Your task to perform on an android device: toggle pop-ups in chrome Image 0: 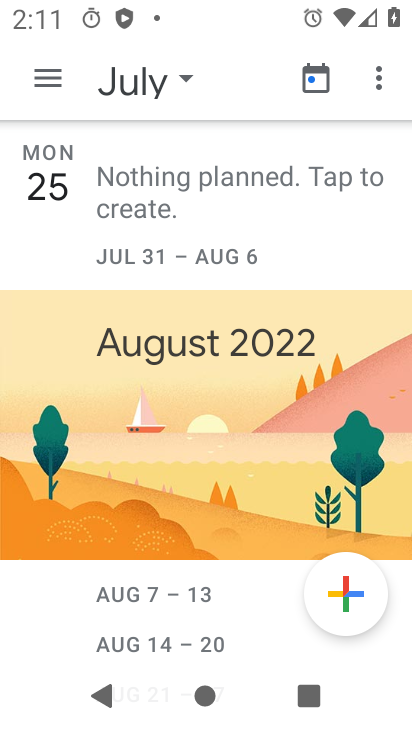
Step 0: press home button
Your task to perform on an android device: toggle pop-ups in chrome Image 1: 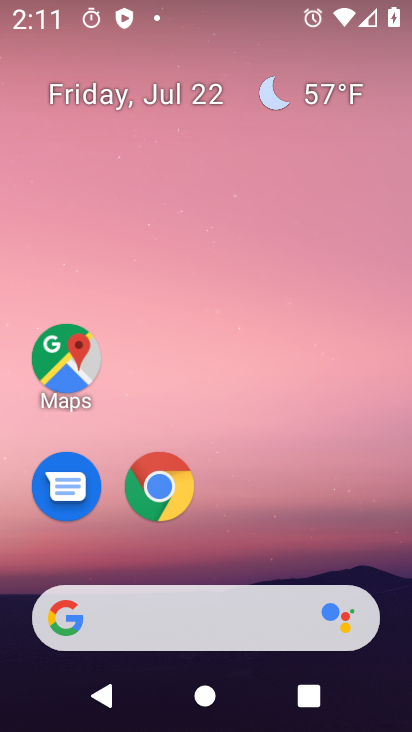
Step 1: drag from (375, 542) to (361, 154)
Your task to perform on an android device: toggle pop-ups in chrome Image 2: 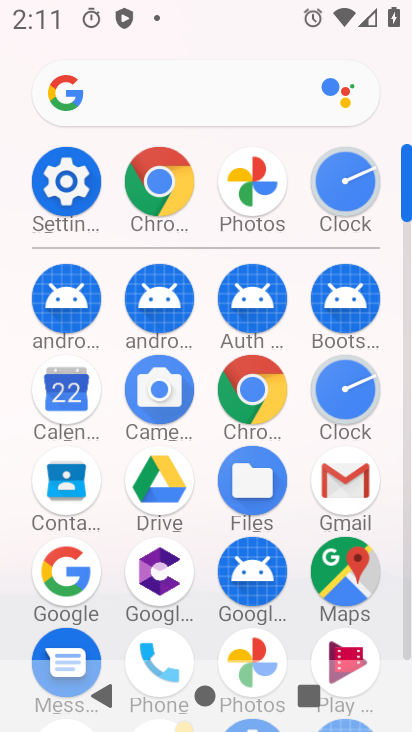
Step 2: click (256, 386)
Your task to perform on an android device: toggle pop-ups in chrome Image 3: 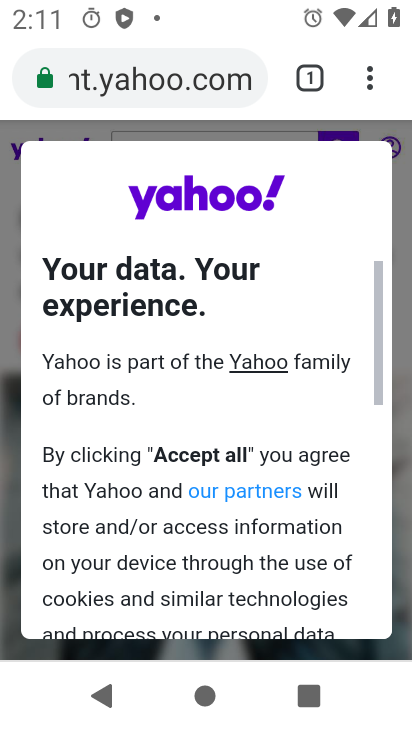
Step 3: click (368, 83)
Your task to perform on an android device: toggle pop-ups in chrome Image 4: 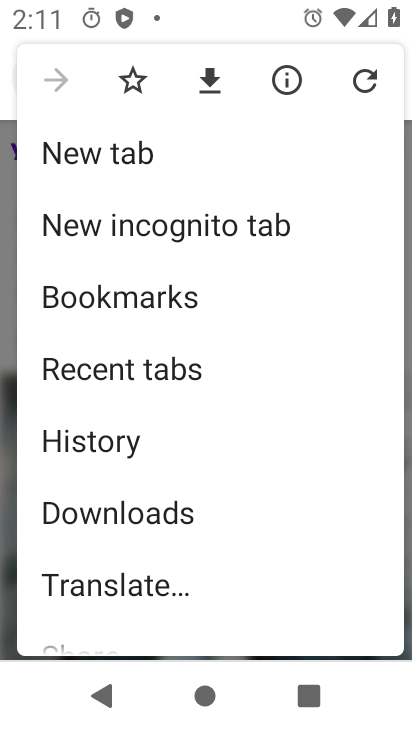
Step 4: drag from (348, 500) to (352, 398)
Your task to perform on an android device: toggle pop-ups in chrome Image 5: 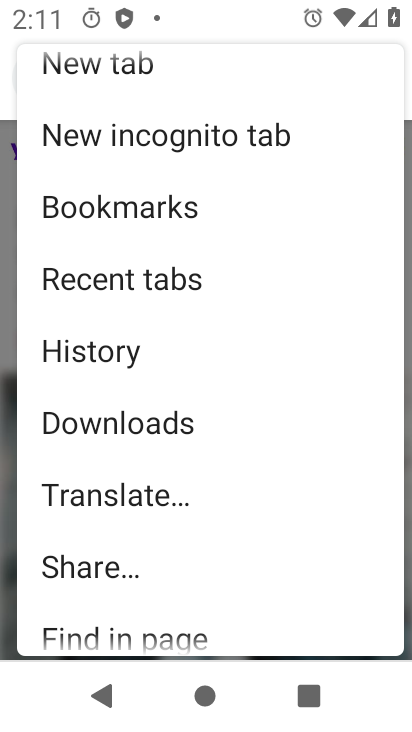
Step 5: drag from (353, 550) to (357, 434)
Your task to perform on an android device: toggle pop-ups in chrome Image 6: 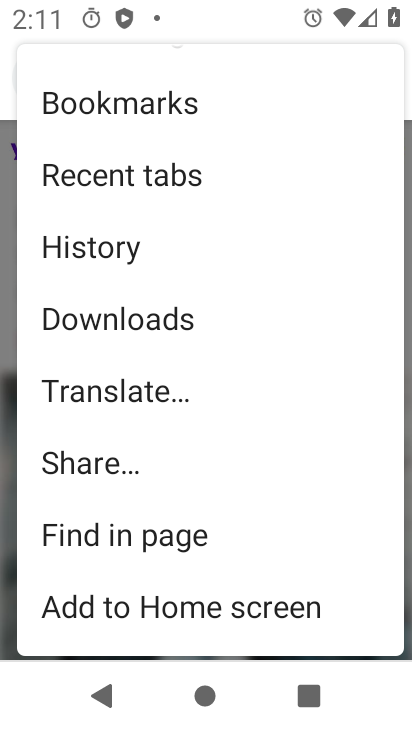
Step 6: drag from (342, 541) to (342, 451)
Your task to perform on an android device: toggle pop-ups in chrome Image 7: 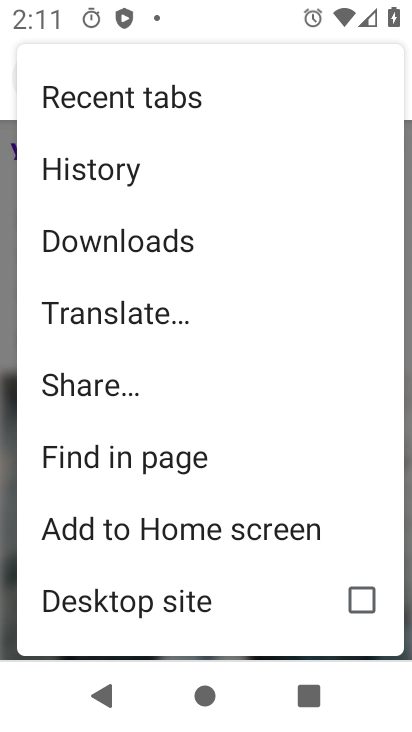
Step 7: drag from (306, 580) to (302, 415)
Your task to perform on an android device: toggle pop-ups in chrome Image 8: 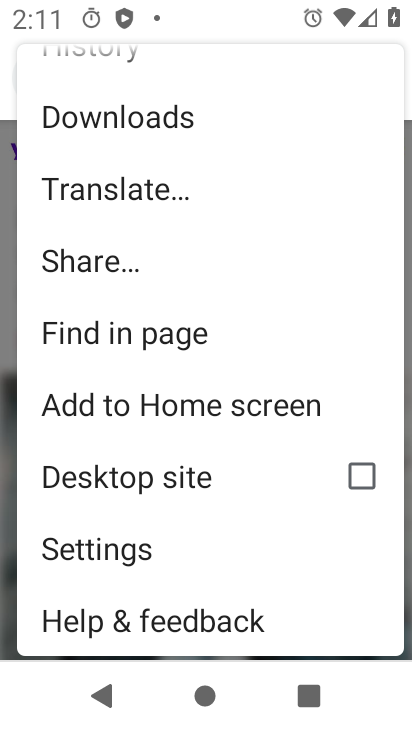
Step 8: click (148, 552)
Your task to perform on an android device: toggle pop-ups in chrome Image 9: 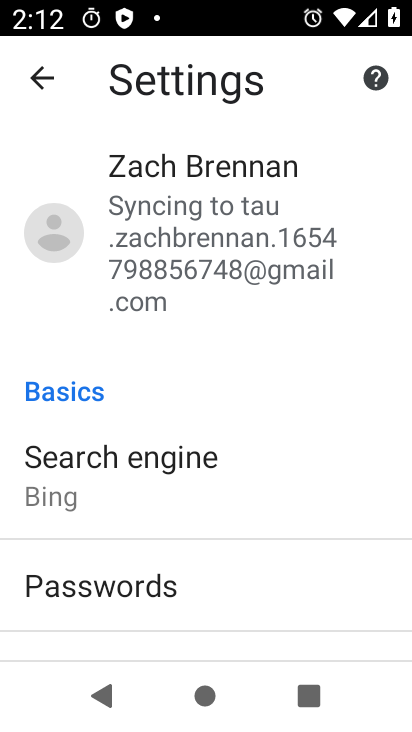
Step 9: drag from (326, 533) to (336, 459)
Your task to perform on an android device: toggle pop-ups in chrome Image 10: 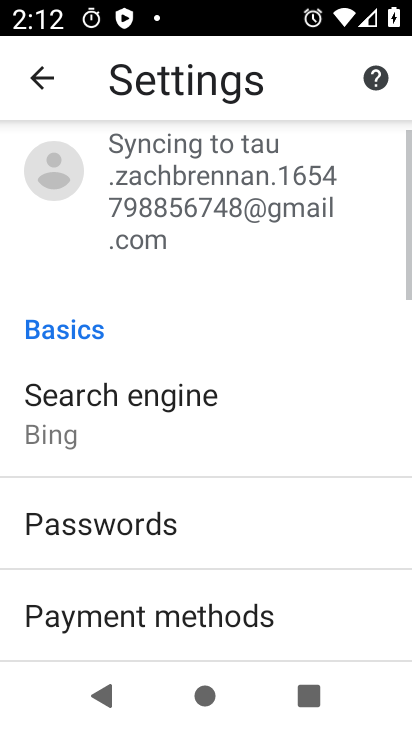
Step 10: drag from (334, 552) to (333, 469)
Your task to perform on an android device: toggle pop-ups in chrome Image 11: 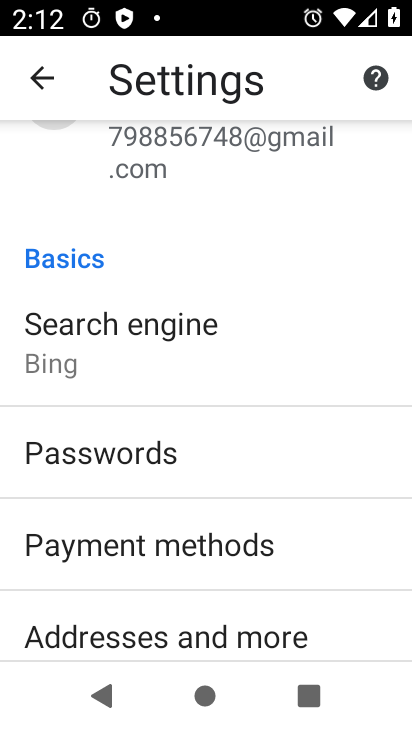
Step 11: drag from (332, 529) to (331, 464)
Your task to perform on an android device: toggle pop-ups in chrome Image 12: 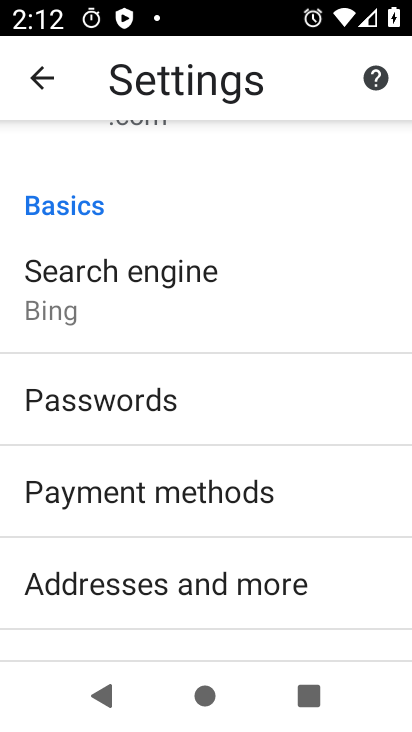
Step 12: drag from (332, 549) to (337, 454)
Your task to perform on an android device: toggle pop-ups in chrome Image 13: 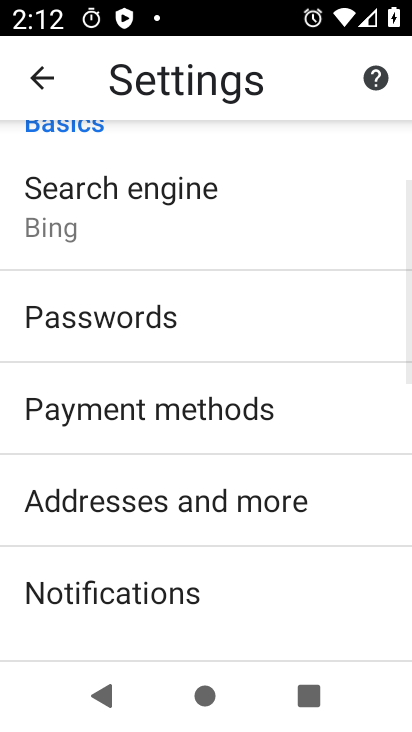
Step 13: drag from (336, 555) to (337, 474)
Your task to perform on an android device: toggle pop-ups in chrome Image 14: 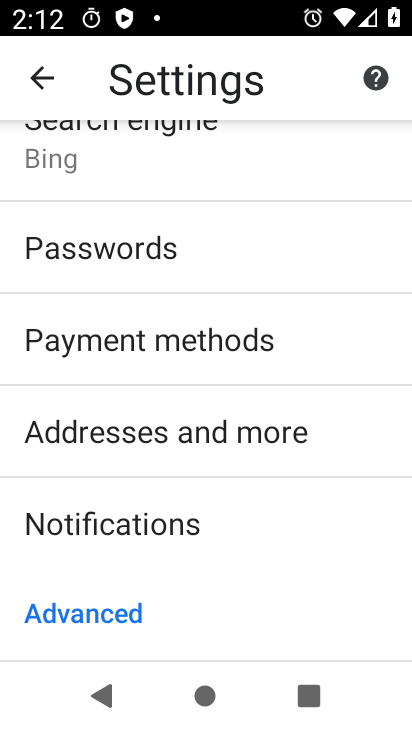
Step 14: drag from (323, 553) to (331, 485)
Your task to perform on an android device: toggle pop-ups in chrome Image 15: 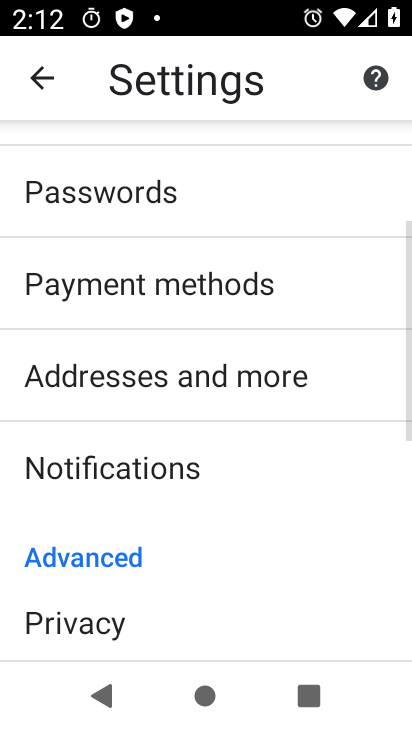
Step 15: drag from (335, 561) to (340, 463)
Your task to perform on an android device: toggle pop-ups in chrome Image 16: 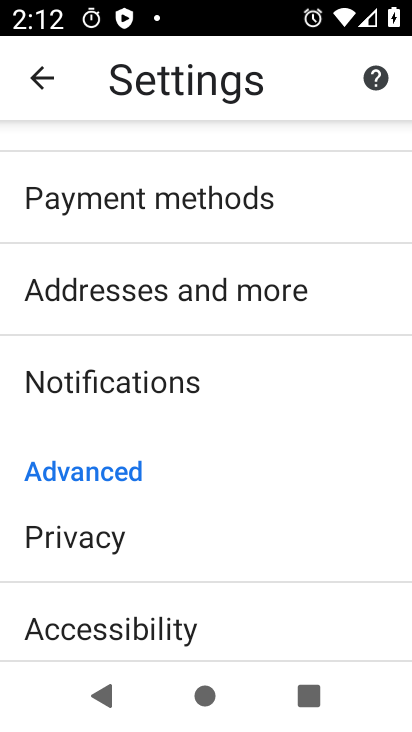
Step 16: drag from (349, 563) to (350, 472)
Your task to perform on an android device: toggle pop-ups in chrome Image 17: 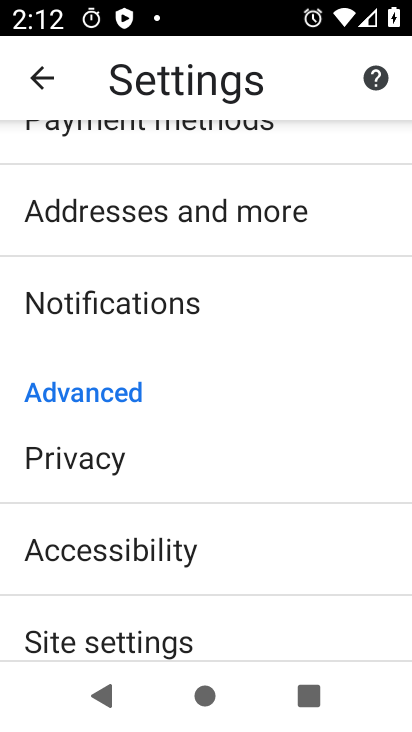
Step 17: drag from (330, 575) to (329, 489)
Your task to perform on an android device: toggle pop-ups in chrome Image 18: 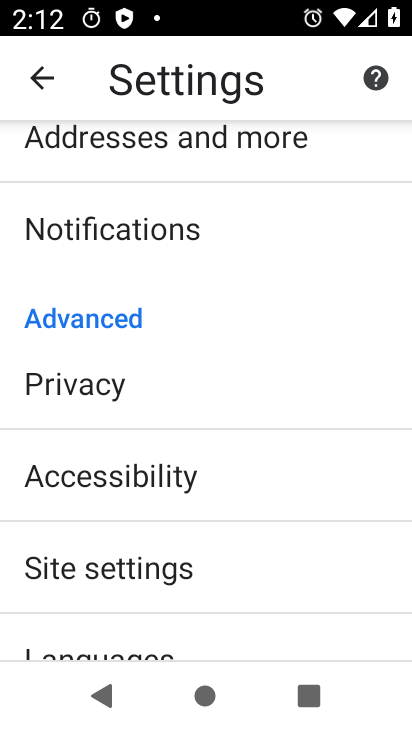
Step 18: click (300, 564)
Your task to perform on an android device: toggle pop-ups in chrome Image 19: 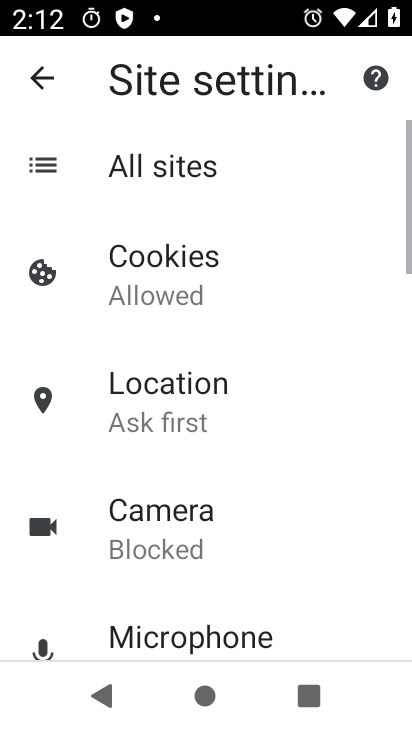
Step 19: drag from (300, 564) to (303, 506)
Your task to perform on an android device: toggle pop-ups in chrome Image 20: 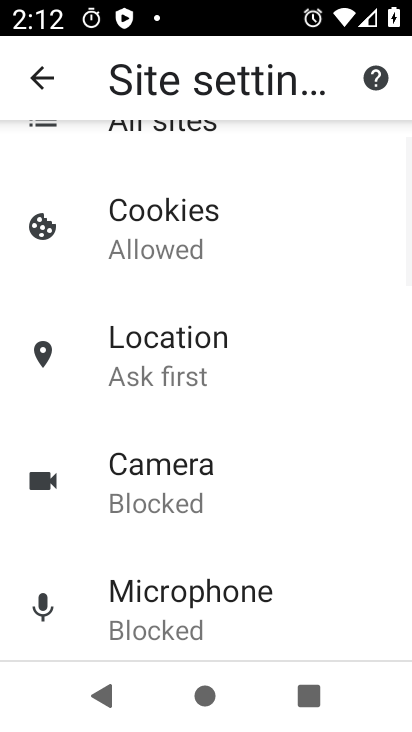
Step 20: drag from (315, 568) to (309, 482)
Your task to perform on an android device: toggle pop-ups in chrome Image 21: 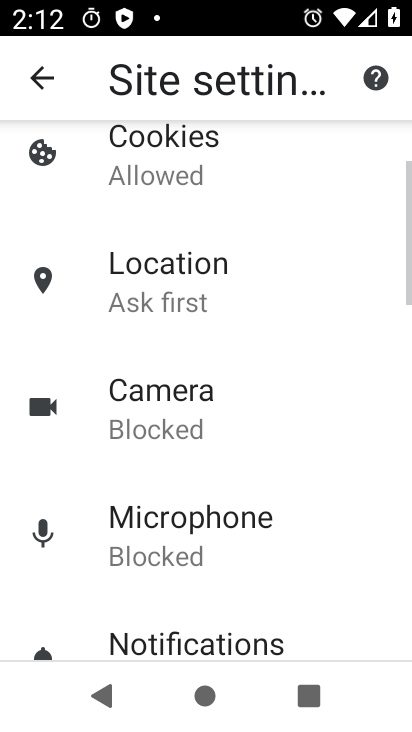
Step 21: drag from (312, 571) to (314, 466)
Your task to perform on an android device: toggle pop-ups in chrome Image 22: 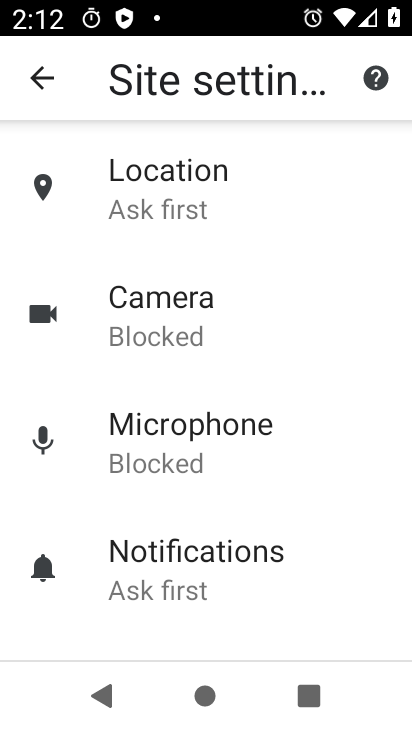
Step 22: drag from (321, 582) to (319, 497)
Your task to perform on an android device: toggle pop-ups in chrome Image 23: 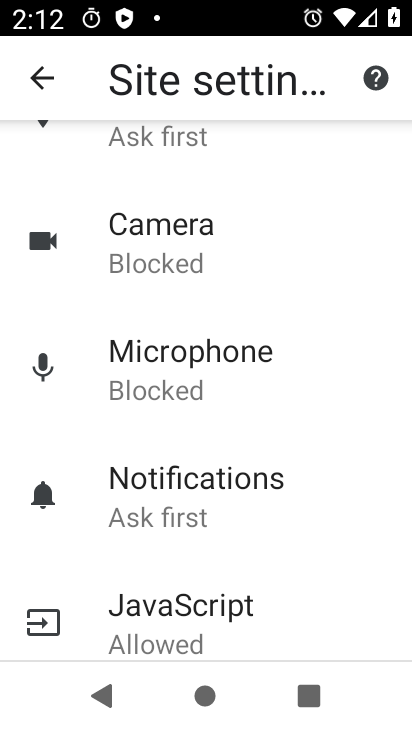
Step 23: drag from (315, 594) to (315, 486)
Your task to perform on an android device: toggle pop-ups in chrome Image 24: 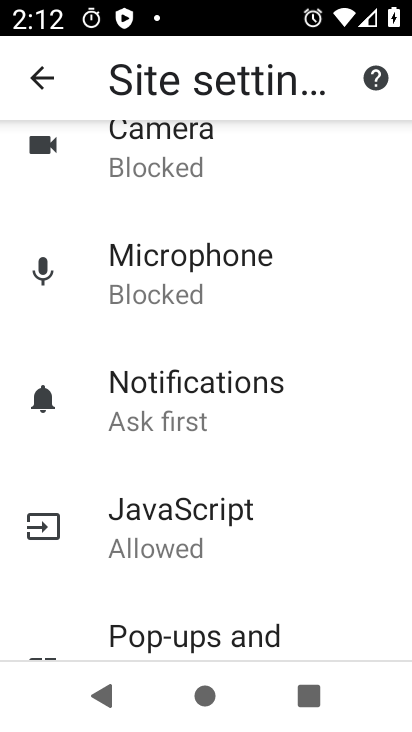
Step 24: drag from (332, 589) to (327, 474)
Your task to perform on an android device: toggle pop-ups in chrome Image 25: 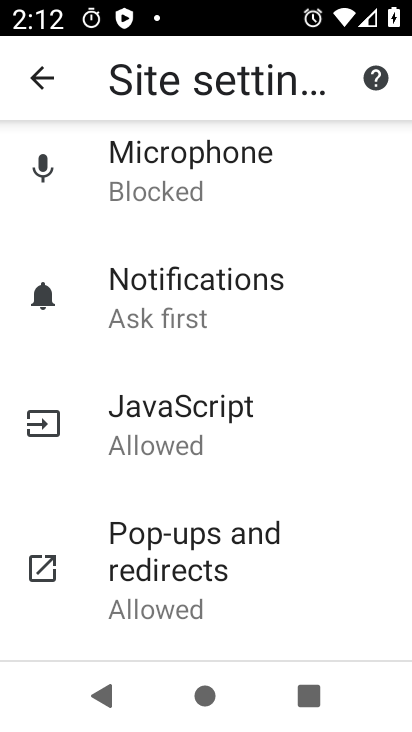
Step 25: click (316, 567)
Your task to perform on an android device: toggle pop-ups in chrome Image 26: 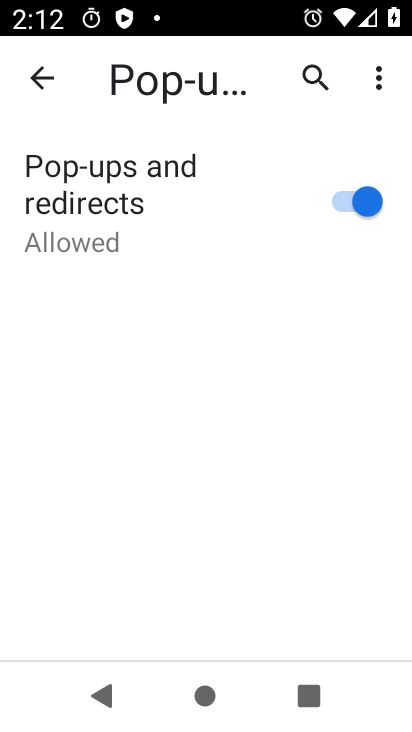
Step 26: click (362, 208)
Your task to perform on an android device: toggle pop-ups in chrome Image 27: 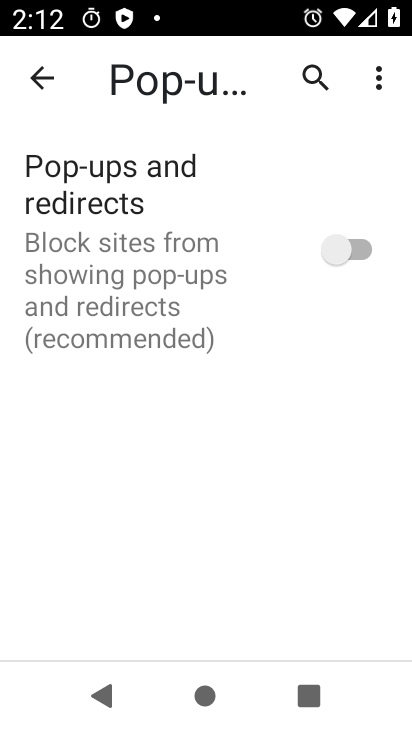
Step 27: task complete